Your task to perform on an android device: Open ESPN.com Image 0: 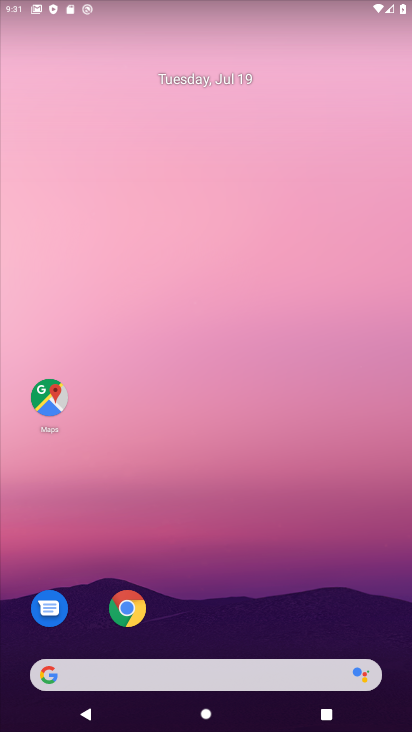
Step 0: drag from (293, 650) to (262, 133)
Your task to perform on an android device: Open ESPN.com Image 1: 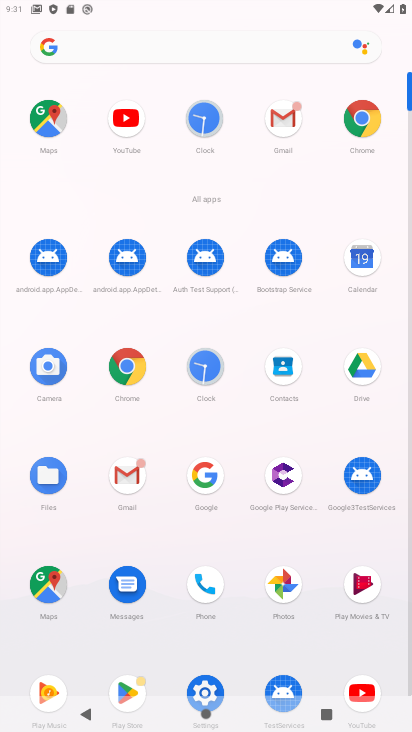
Step 1: click (362, 122)
Your task to perform on an android device: Open ESPN.com Image 2: 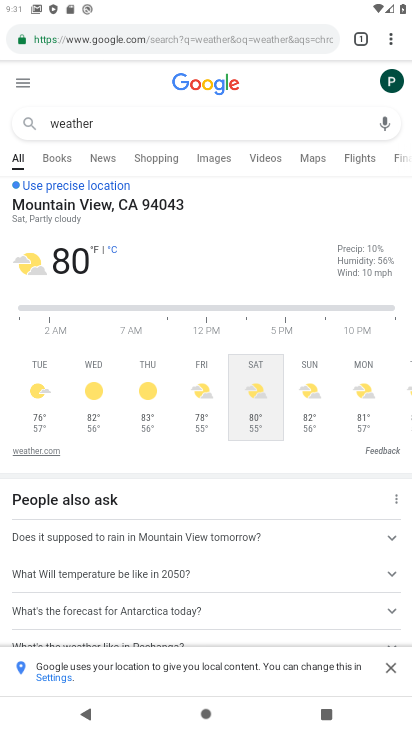
Step 2: click (252, 44)
Your task to perform on an android device: Open ESPN.com Image 3: 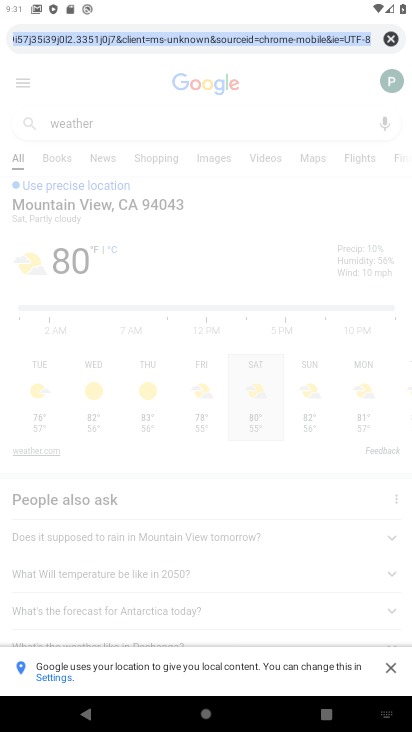
Step 3: type "espn.com"
Your task to perform on an android device: Open ESPN.com Image 4: 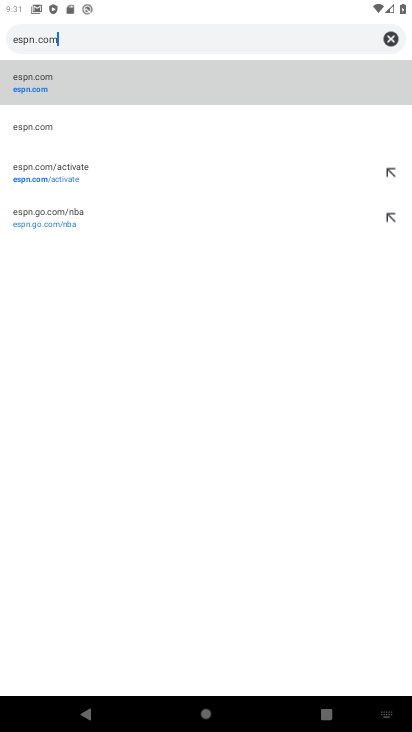
Step 4: click (38, 85)
Your task to perform on an android device: Open ESPN.com Image 5: 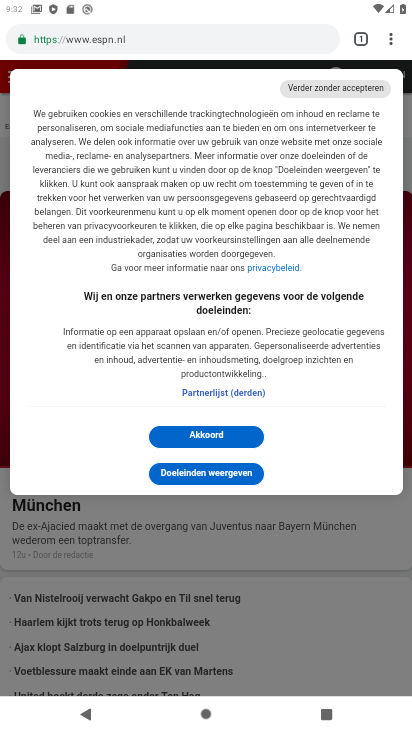
Step 5: task complete